Your task to perform on an android device: clear all cookies in the chrome app Image 0: 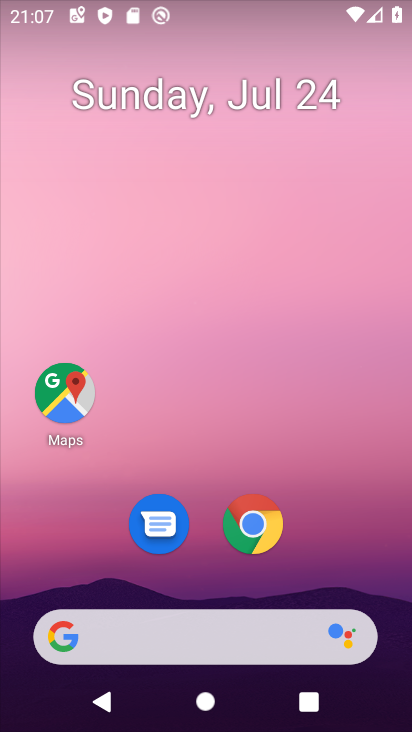
Step 0: click (258, 531)
Your task to perform on an android device: clear all cookies in the chrome app Image 1: 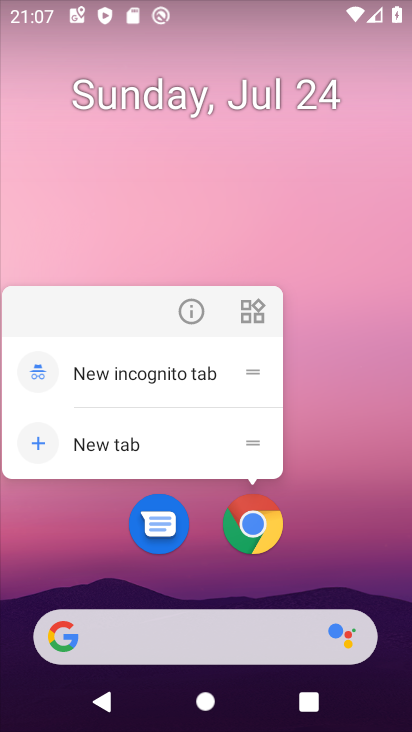
Step 1: click (257, 520)
Your task to perform on an android device: clear all cookies in the chrome app Image 2: 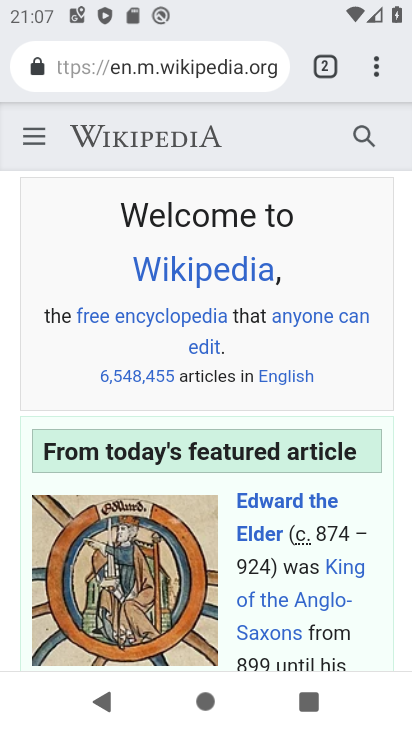
Step 2: drag from (378, 73) to (267, 528)
Your task to perform on an android device: clear all cookies in the chrome app Image 3: 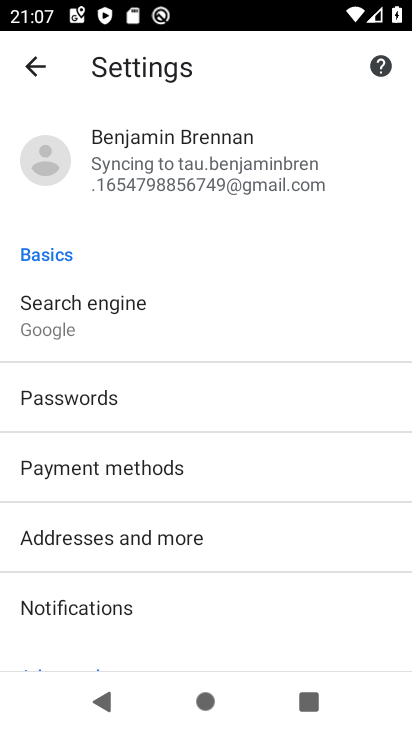
Step 3: drag from (220, 620) to (329, 223)
Your task to perform on an android device: clear all cookies in the chrome app Image 4: 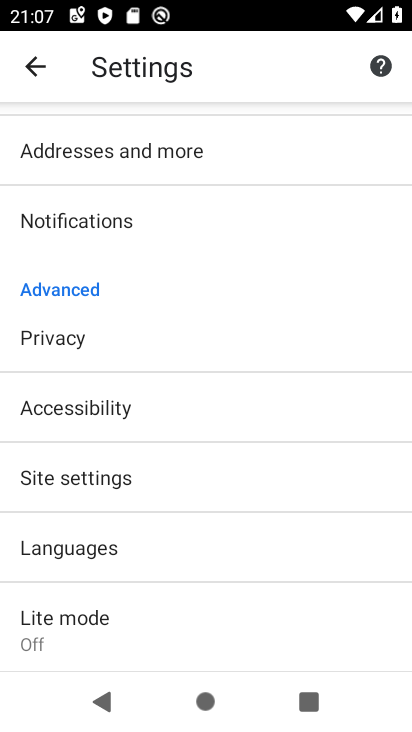
Step 4: click (71, 346)
Your task to perform on an android device: clear all cookies in the chrome app Image 5: 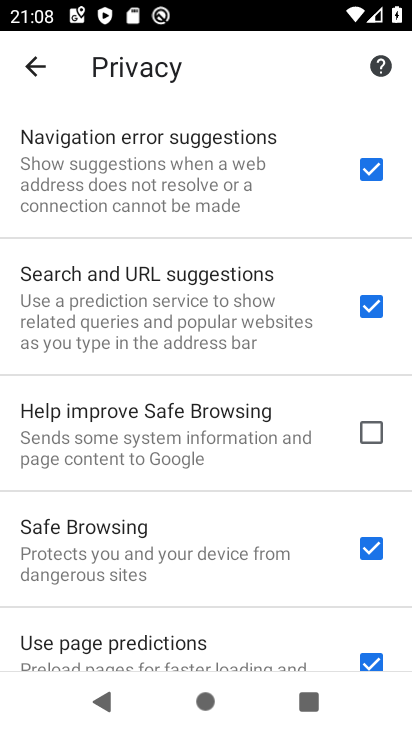
Step 5: drag from (206, 622) to (337, 144)
Your task to perform on an android device: clear all cookies in the chrome app Image 6: 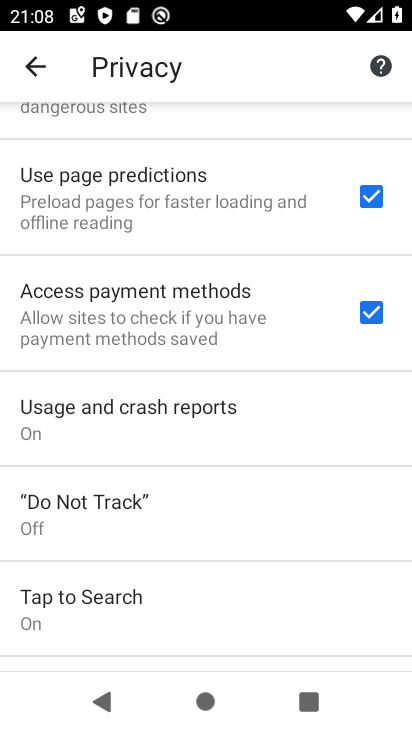
Step 6: drag from (208, 565) to (332, 80)
Your task to perform on an android device: clear all cookies in the chrome app Image 7: 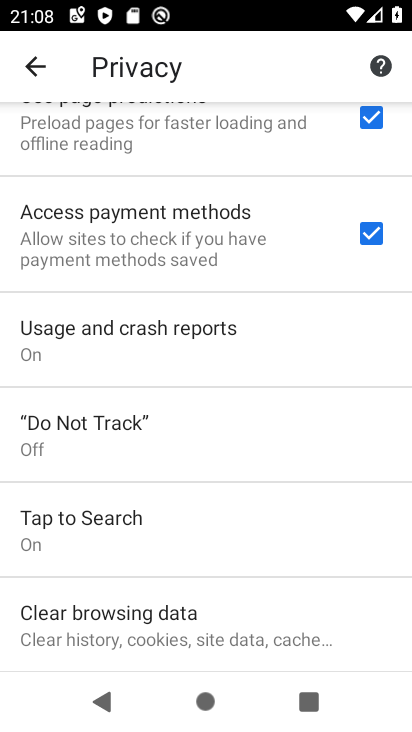
Step 7: click (117, 616)
Your task to perform on an android device: clear all cookies in the chrome app Image 8: 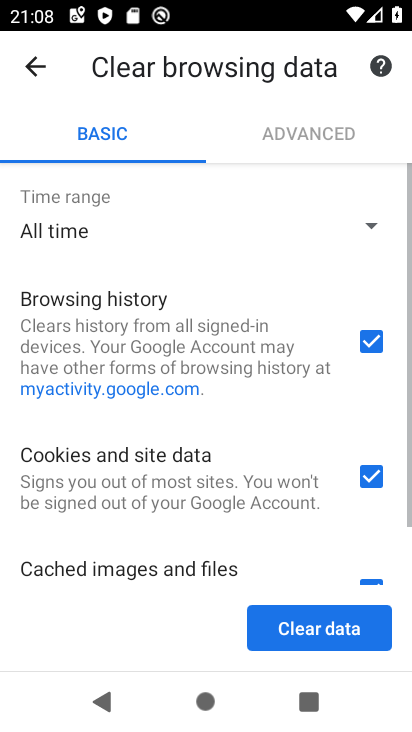
Step 8: click (363, 337)
Your task to perform on an android device: clear all cookies in the chrome app Image 9: 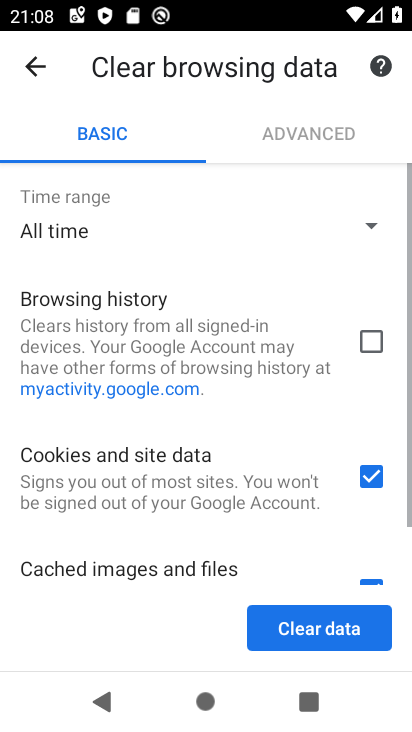
Step 9: drag from (234, 541) to (338, 243)
Your task to perform on an android device: clear all cookies in the chrome app Image 10: 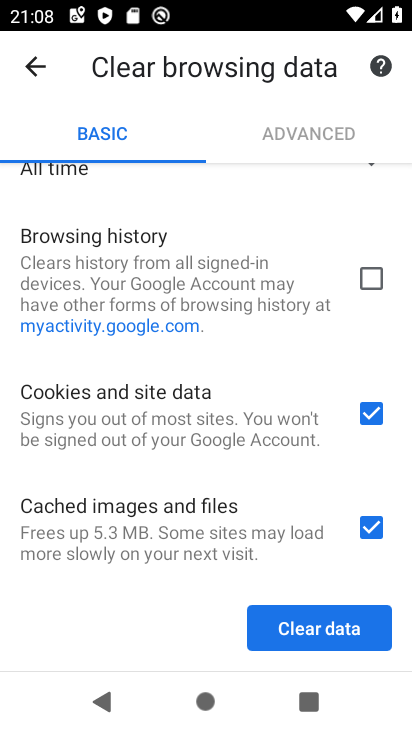
Step 10: click (369, 528)
Your task to perform on an android device: clear all cookies in the chrome app Image 11: 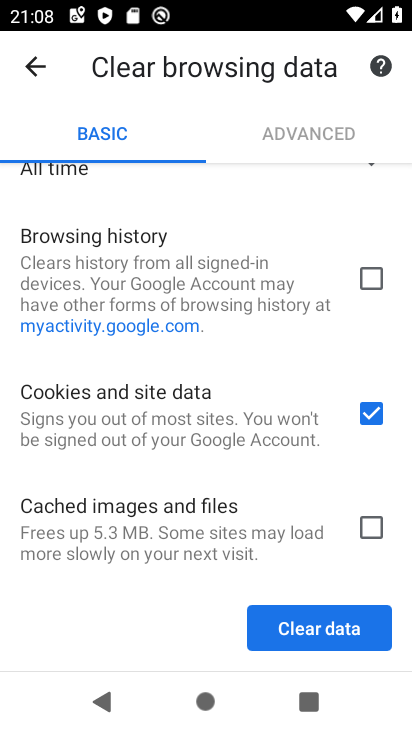
Step 11: click (345, 632)
Your task to perform on an android device: clear all cookies in the chrome app Image 12: 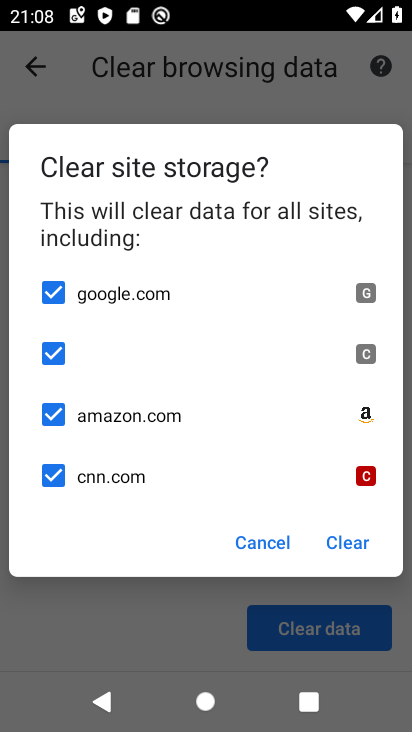
Step 12: click (346, 545)
Your task to perform on an android device: clear all cookies in the chrome app Image 13: 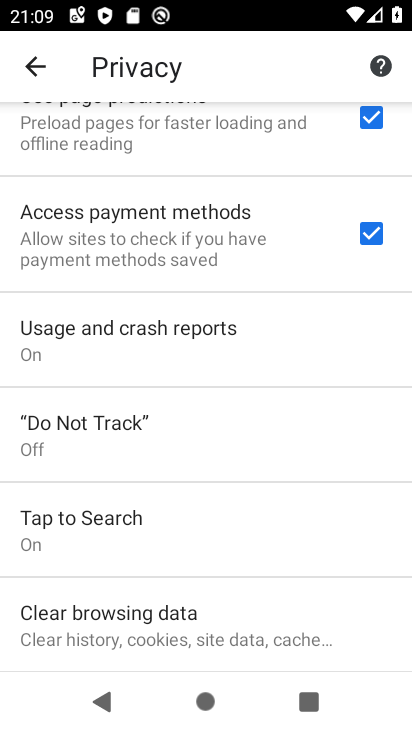
Step 13: task complete